Your task to perform on an android device: Open Chrome and go to settings Image 0: 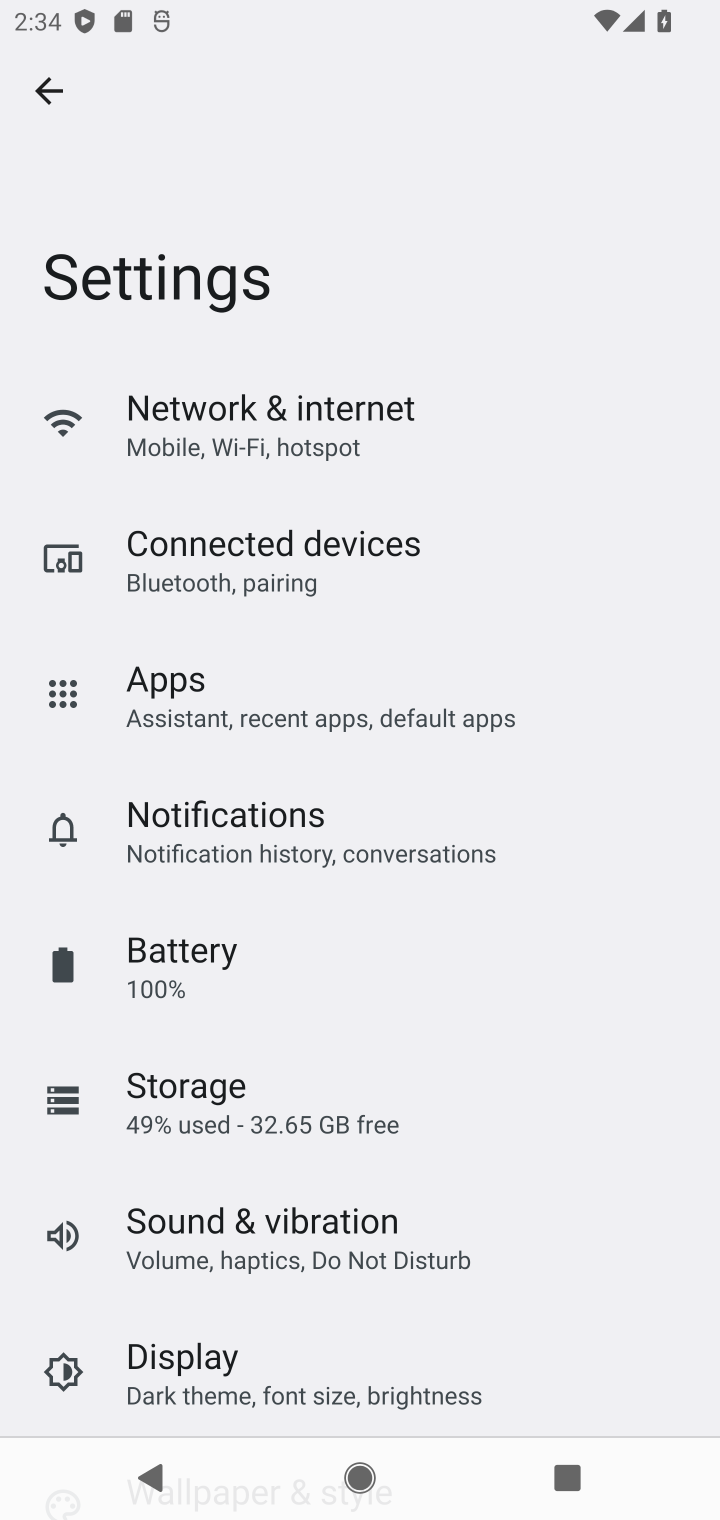
Step 0: press home button
Your task to perform on an android device: Open Chrome and go to settings Image 1: 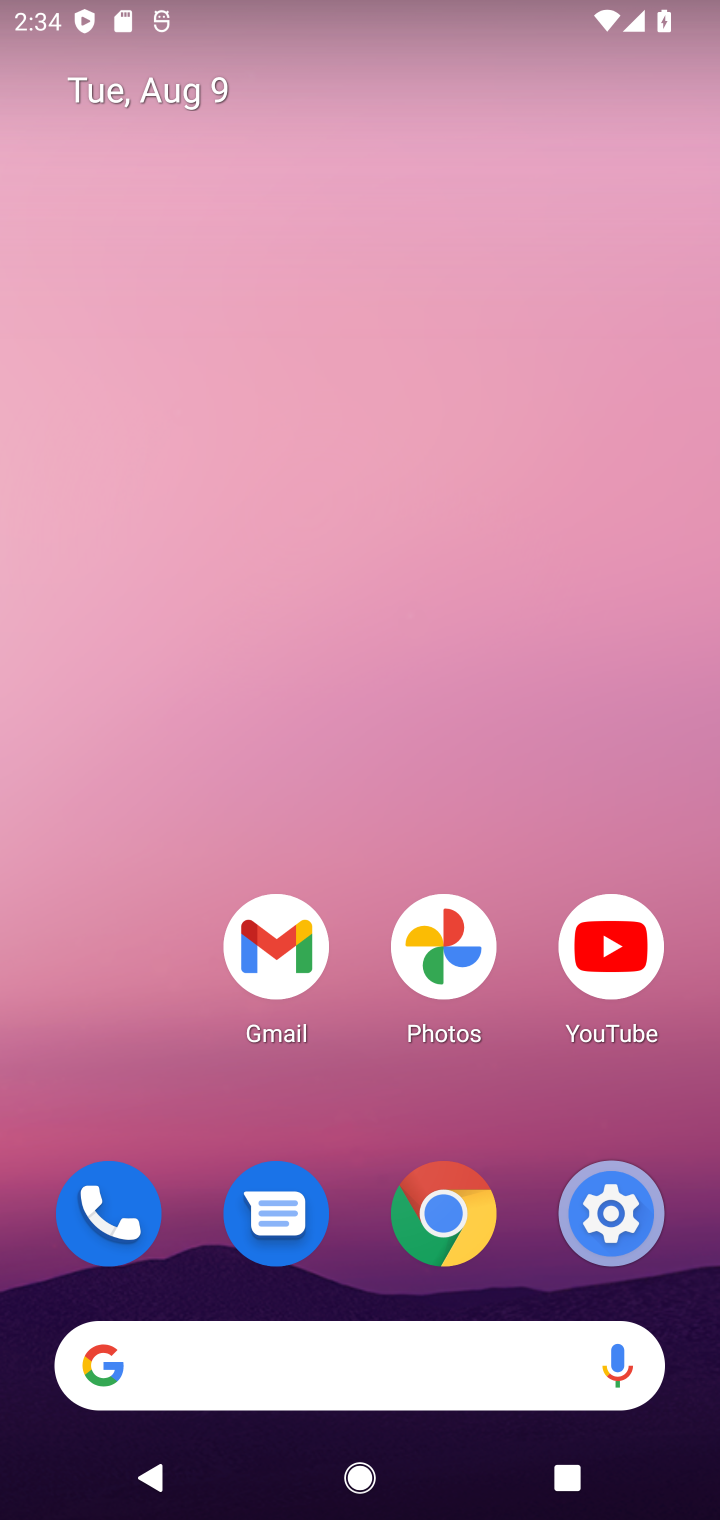
Step 1: click (447, 1210)
Your task to perform on an android device: Open Chrome and go to settings Image 2: 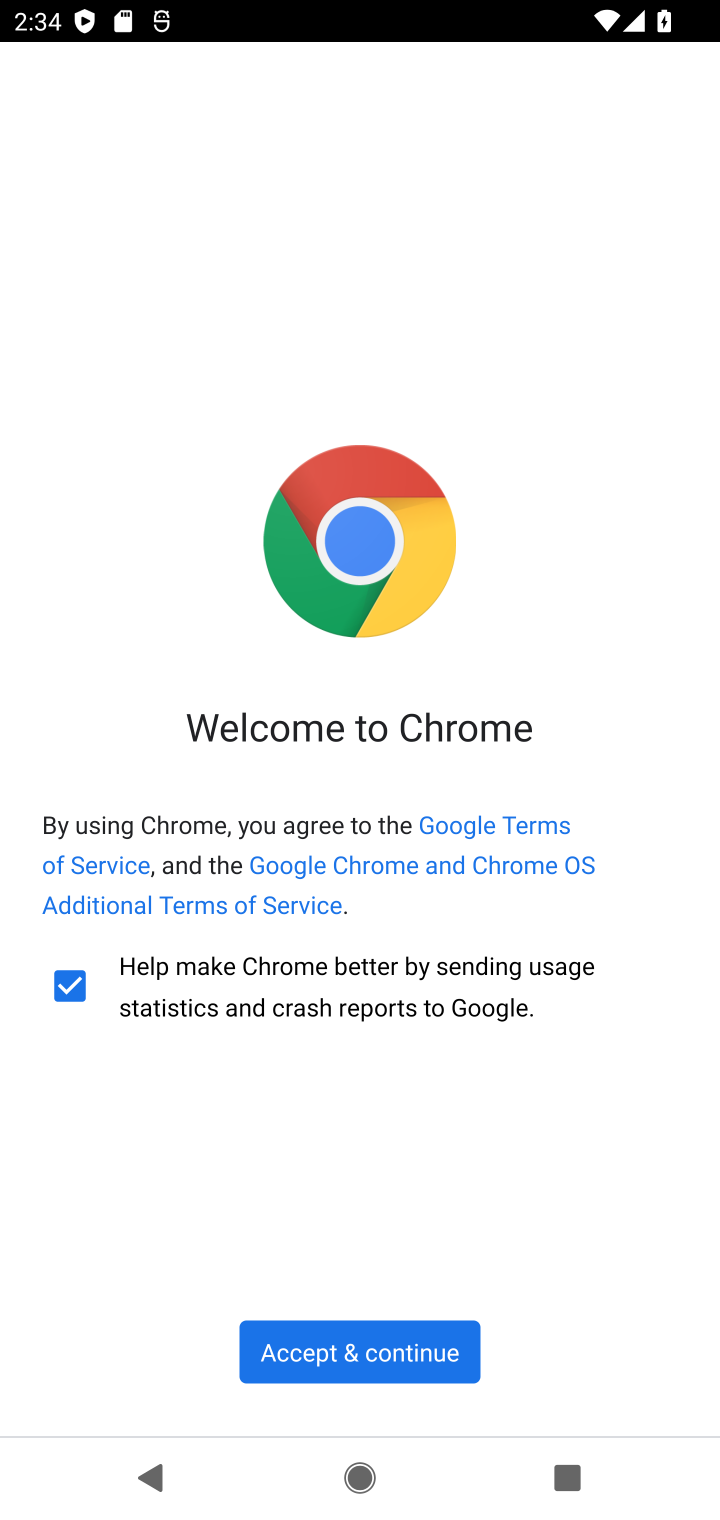
Step 2: click (345, 1341)
Your task to perform on an android device: Open Chrome and go to settings Image 3: 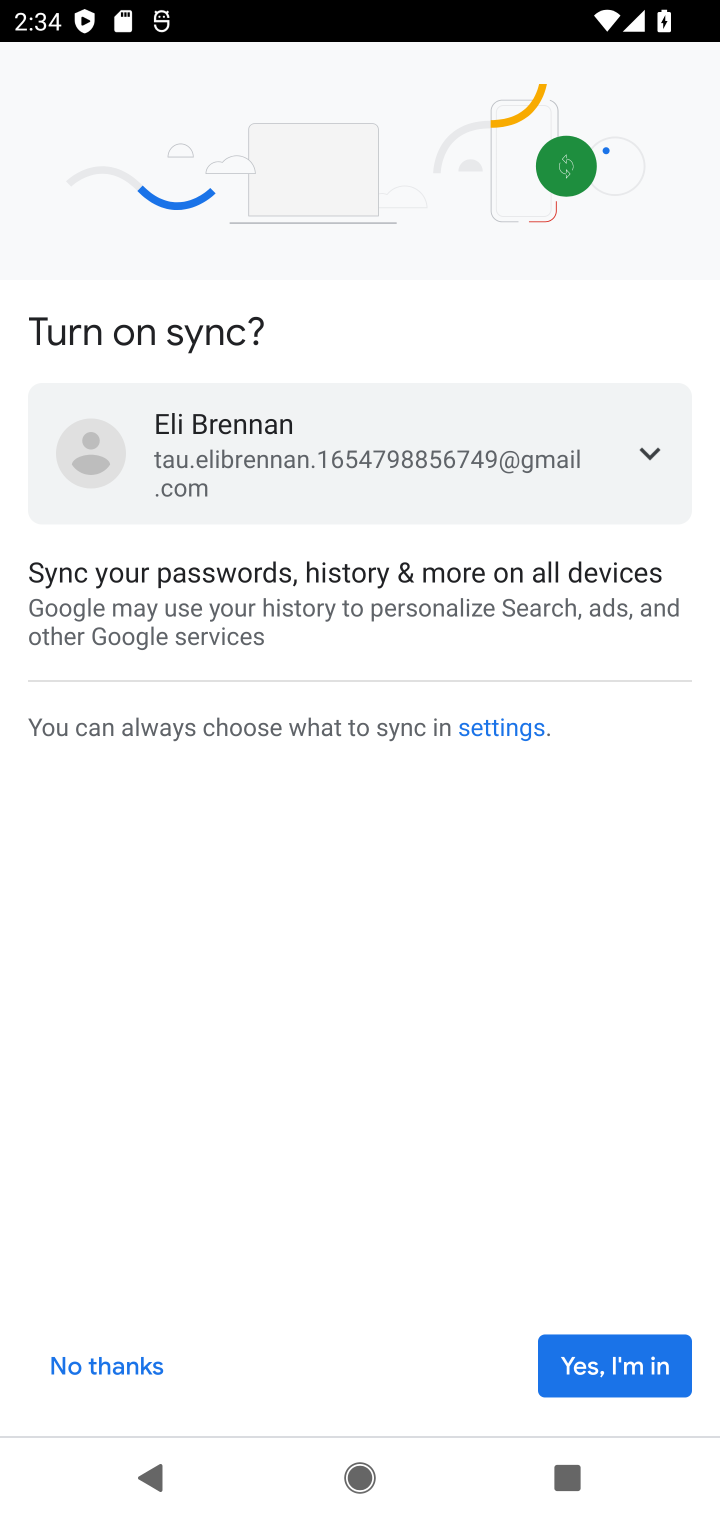
Step 3: click (606, 1381)
Your task to perform on an android device: Open Chrome and go to settings Image 4: 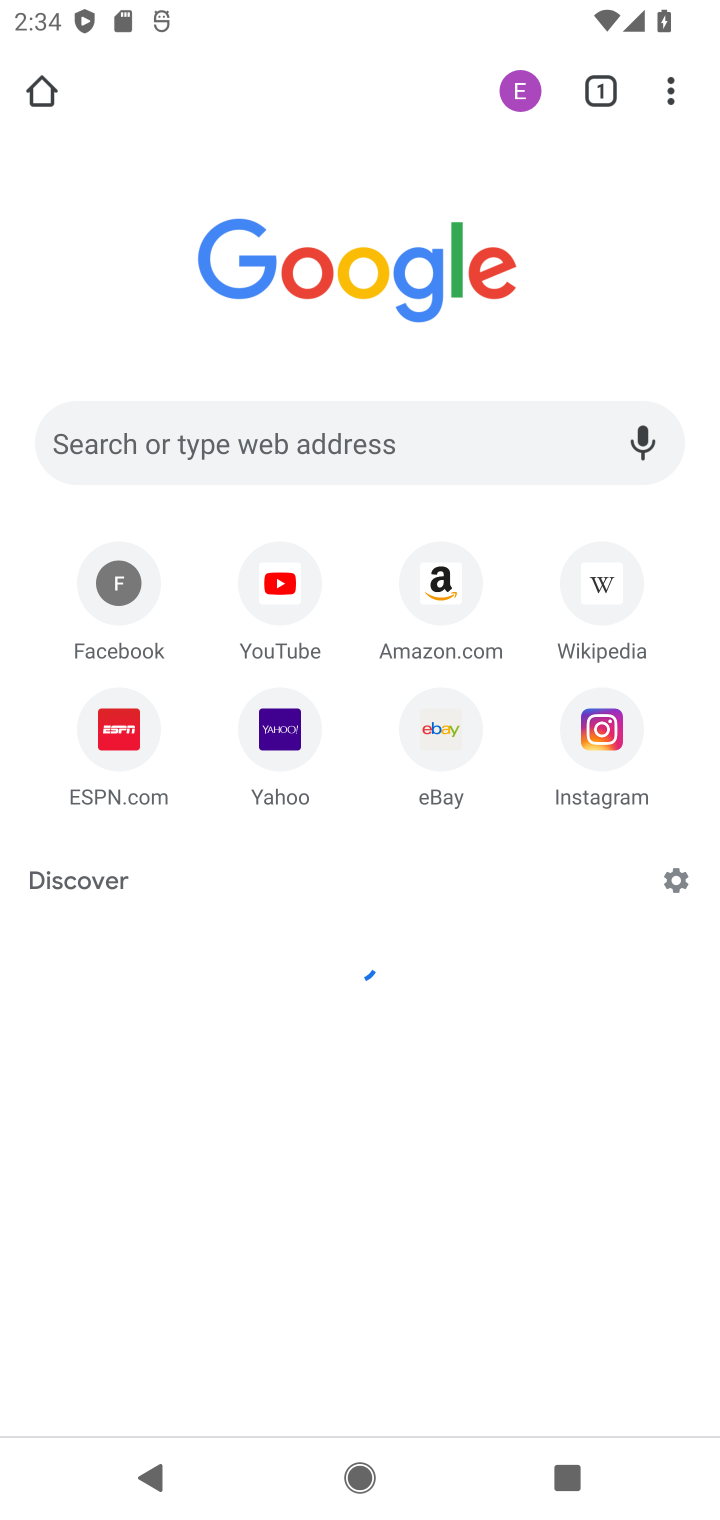
Step 4: click (673, 91)
Your task to perform on an android device: Open Chrome and go to settings Image 5: 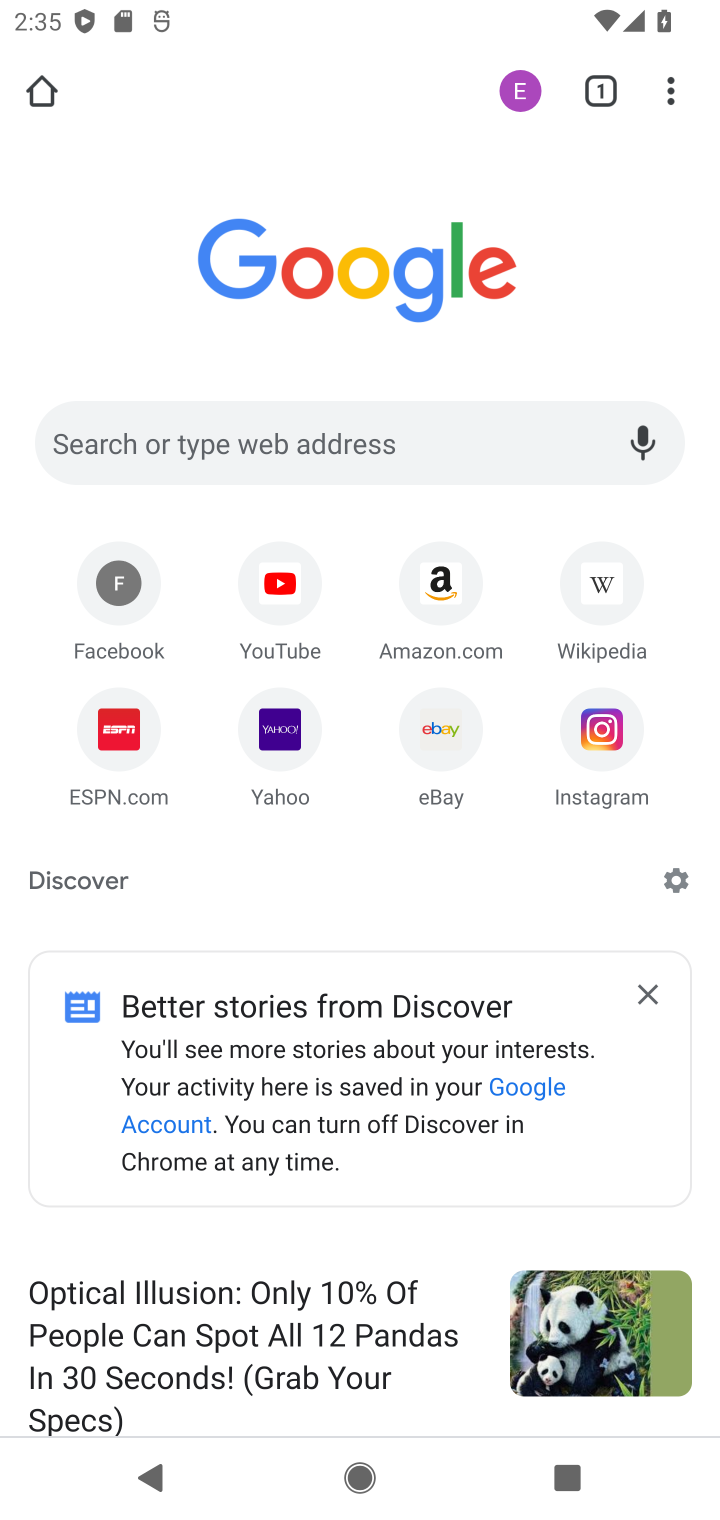
Step 5: click (686, 91)
Your task to perform on an android device: Open Chrome and go to settings Image 6: 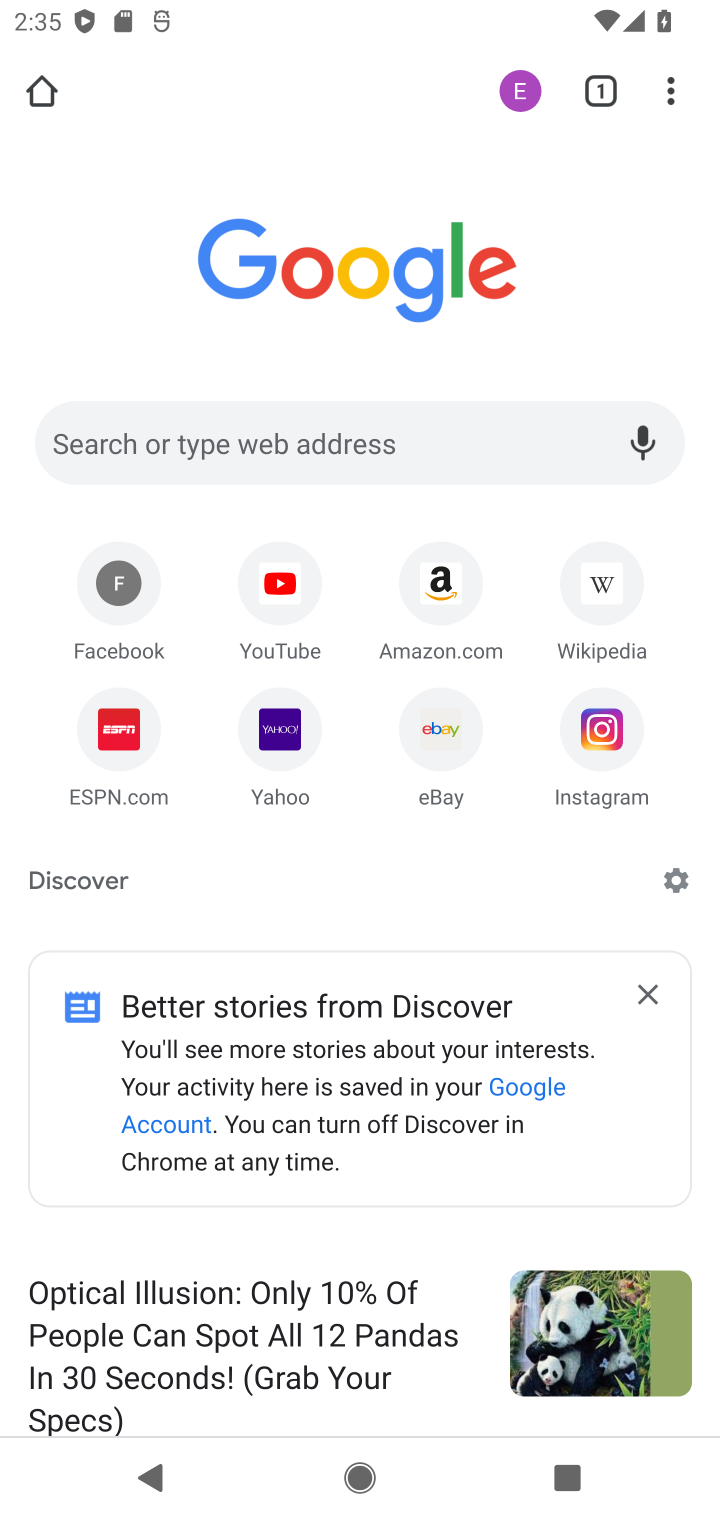
Step 6: task complete